Your task to perform on an android device: Go to wifi settings Image 0: 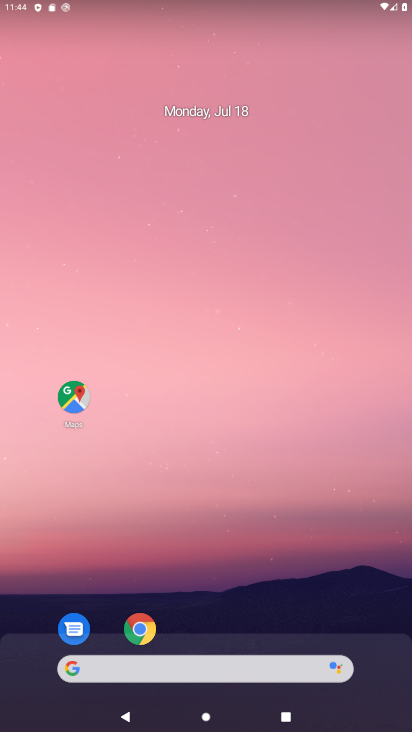
Step 0: drag from (252, 620) to (221, 153)
Your task to perform on an android device: Go to wifi settings Image 1: 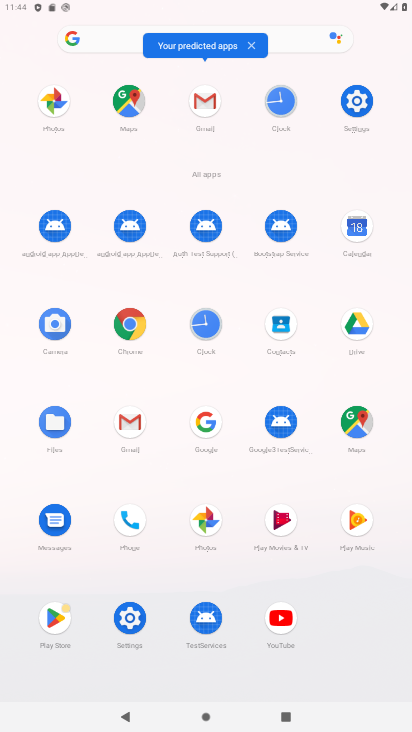
Step 1: click (352, 95)
Your task to perform on an android device: Go to wifi settings Image 2: 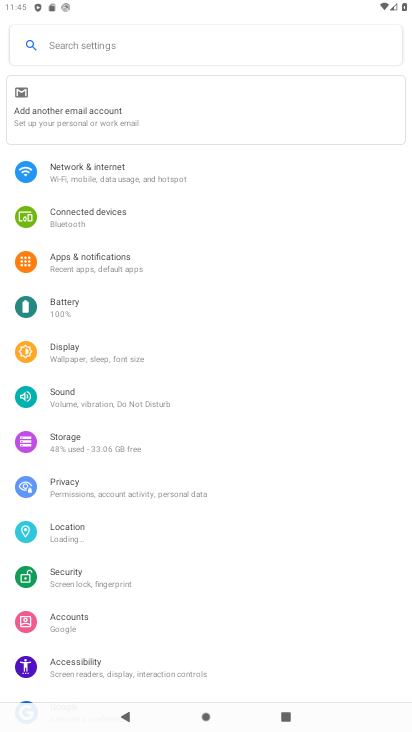
Step 2: click (185, 177)
Your task to perform on an android device: Go to wifi settings Image 3: 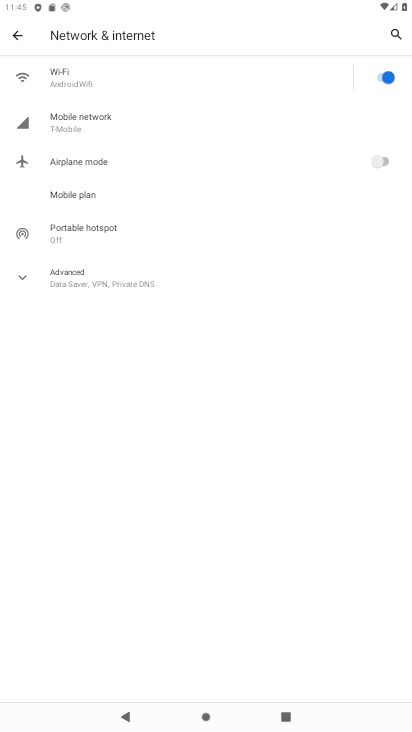
Step 3: click (252, 82)
Your task to perform on an android device: Go to wifi settings Image 4: 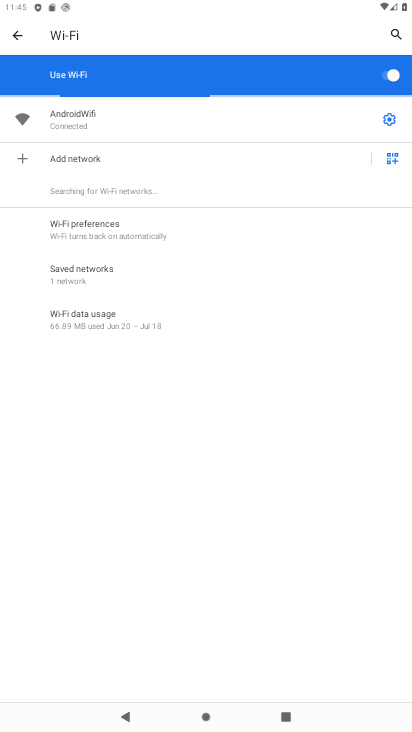
Step 4: task complete